Your task to perform on an android device: turn off wifi Image 0: 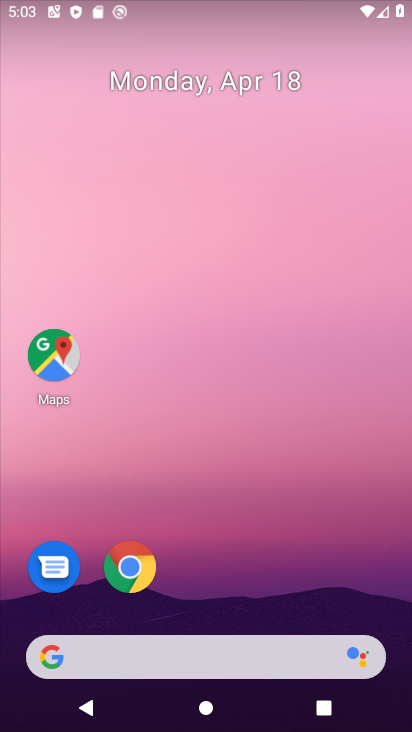
Step 0: drag from (353, 506) to (197, 4)
Your task to perform on an android device: turn off wifi Image 1: 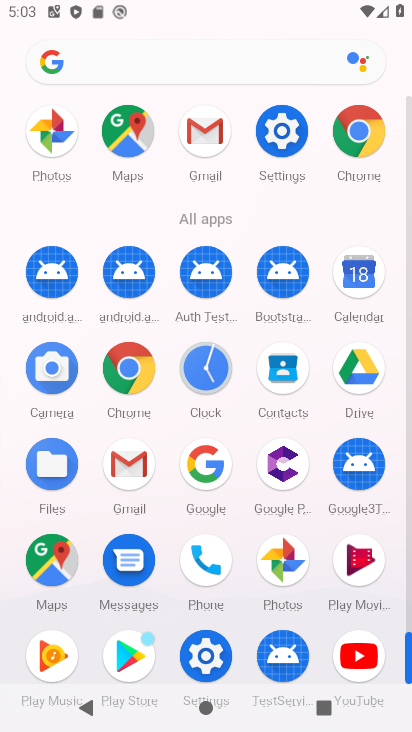
Step 1: click (206, 653)
Your task to perform on an android device: turn off wifi Image 2: 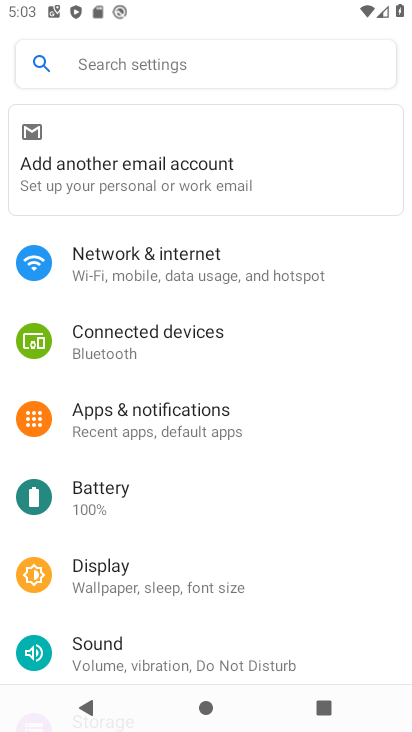
Step 2: click (223, 252)
Your task to perform on an android device: turn off wifi Image 3: 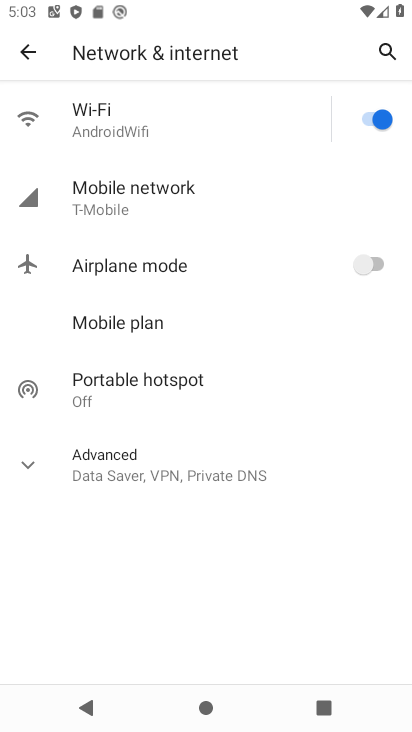
Step 3: click (371, 117)
Your task to perform on an android device: turn off wifi Image 4: 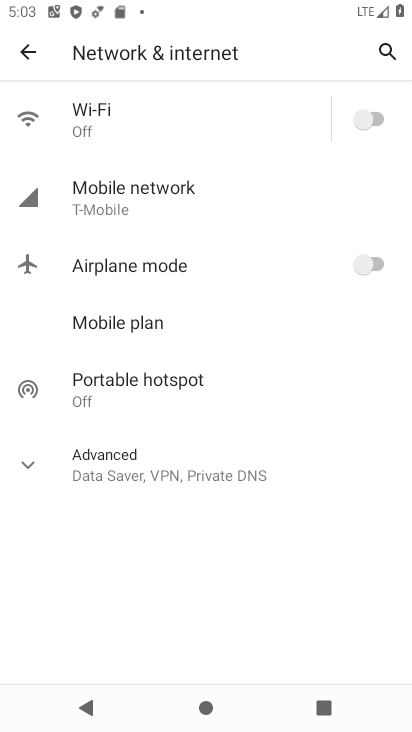
Step 4: task complete